Your task to perform on an android device: Go to Google maps Image 0: 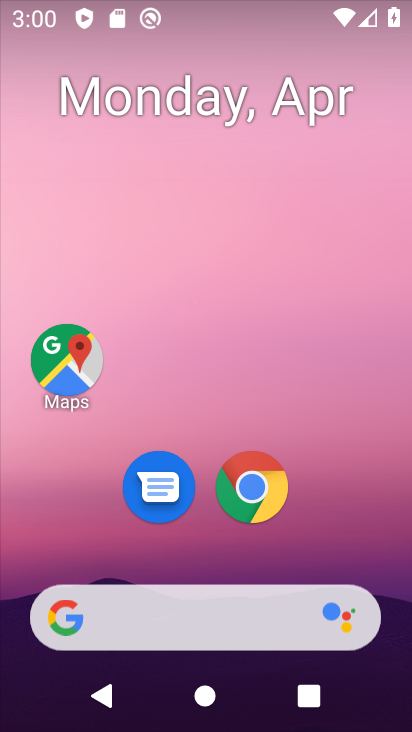
Step 0: click (66, 374)
Your task to perform on an android device: Go to Google maps Image 1: 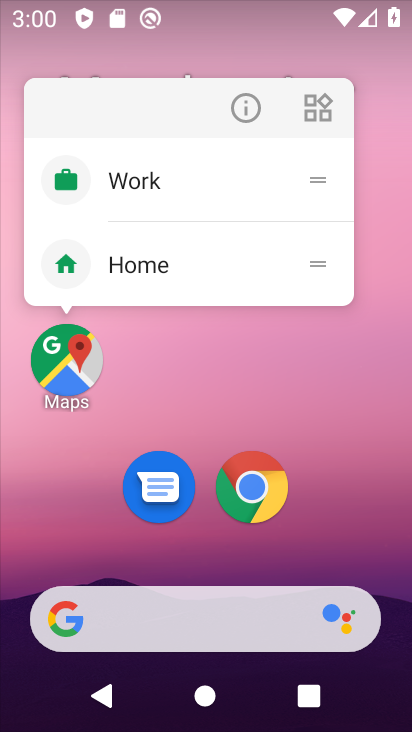
Step 1: click (67, 380)
Your task to perform on an android device: Go to Google maps Image 2: 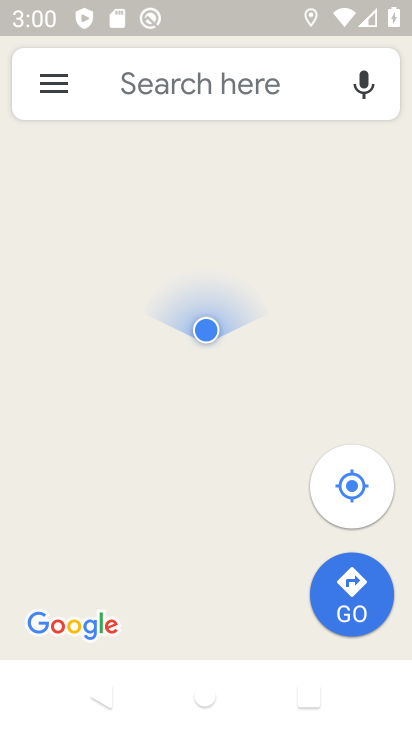
Step 2: task complete